Your task to perform on an android device: Go to accessibility settings Image 0: 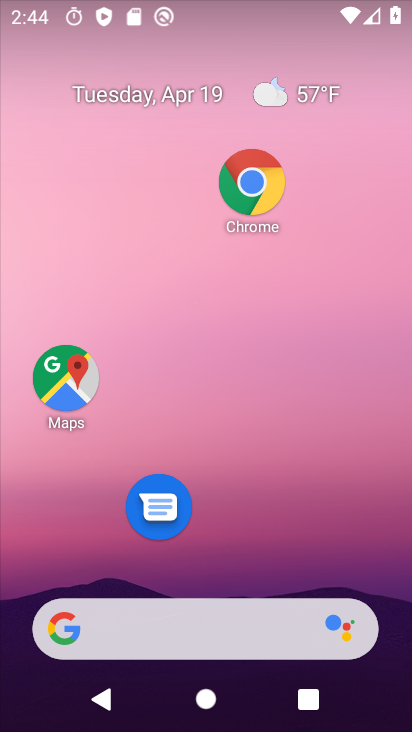
Step 0: drag from (288, 520) to (347, 199)
Your task to perform on an android device: Go to accessibility settings Image 1: 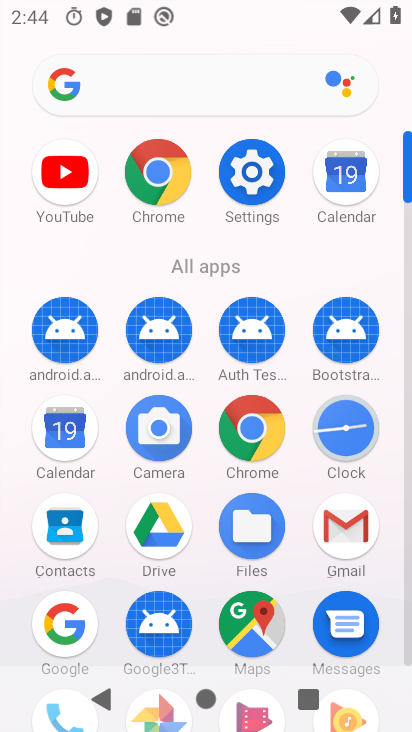
Step 1: click (255, 180)
Your task to perform on an android device: Go to accessibility settings Image 2: 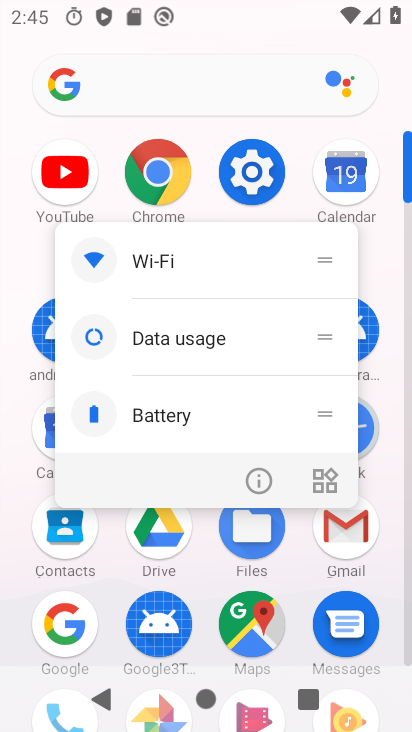
Step 2: click (267, 199)
Your task to perform on an android device: Go to accessibility settings Image 3: 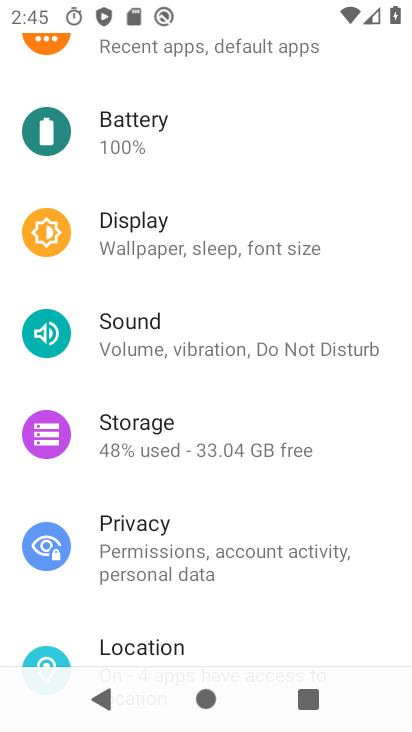
Step 3: drag from (222, 523) to (290, 237)
Your task to perform on an android device: Go to accessibility settings Image 4: 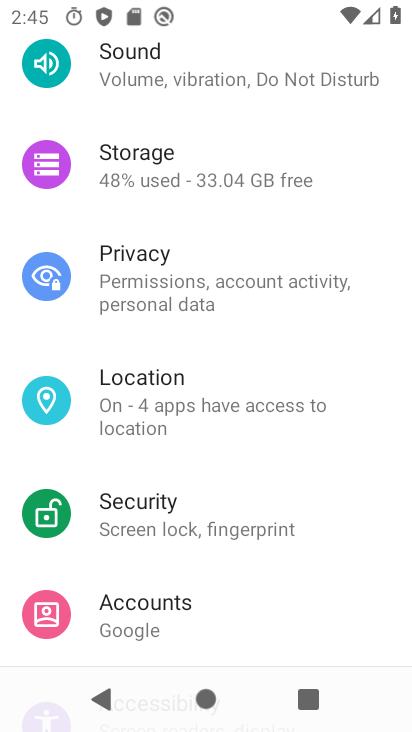
Step 4: drag from (225, 439) to (251, 262)
Your task to perform on an android device: Go to accessibility settings Image 5: 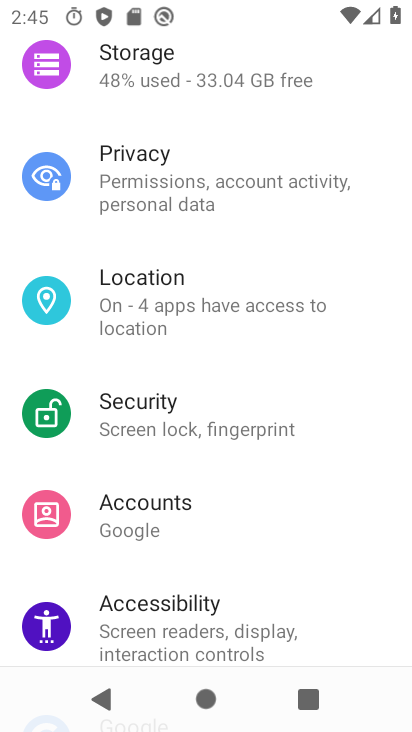
Step 5: click (191, 616)
Your task to perform on an android device: Go to accessibility settings Image 6: 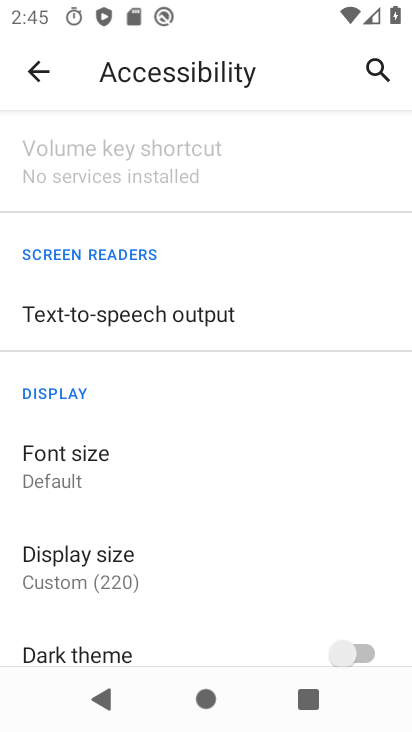
Step 6: task complete